Your task to perform on an android device: Open Chrome and go to settings Image 0: 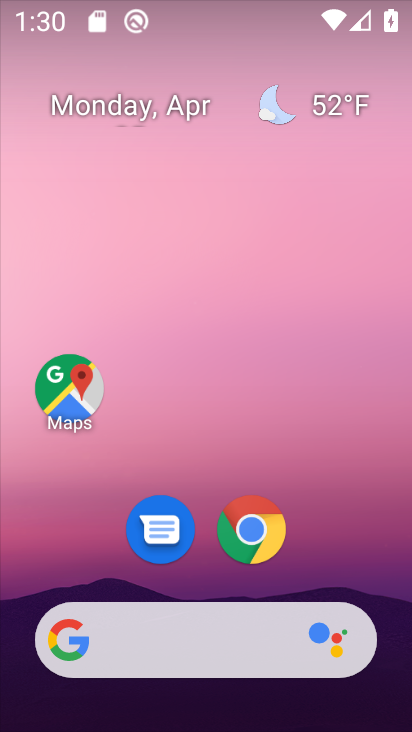
Step 0: drag from (383, 587) to (354, 247)
Your task to perform on an android device: Open Chrome and go to settings Image 1: 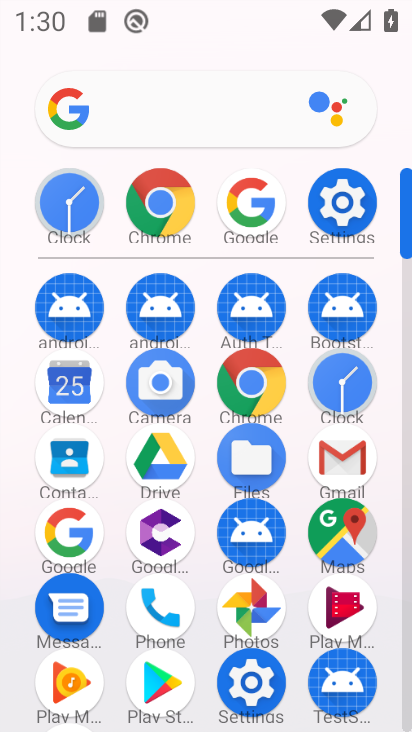
Step 1: click (155, 205)
Your task to perform on an android device: Open Chrome and go to settings Image 2: 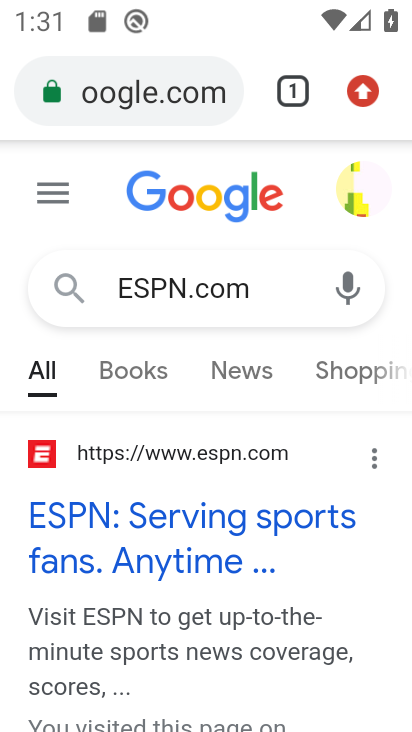
Step 2: click (359, 94)
Your task to perform on an android device: Open Chrome and go to settings Image 3: 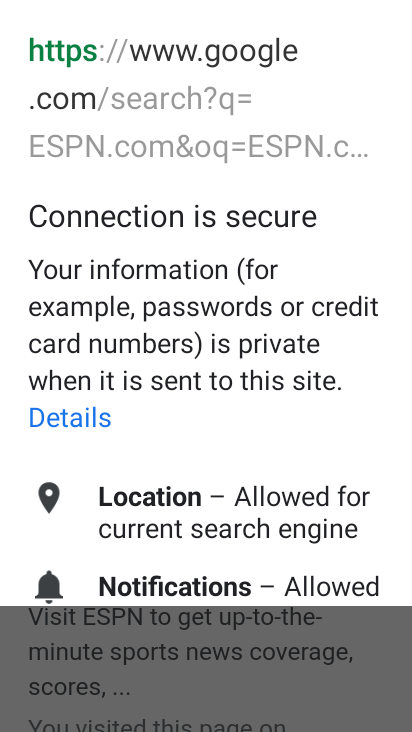
Step 3: click (309, 220)
Your task to perform on an android device: Open Chrome and go to settings Image 4: 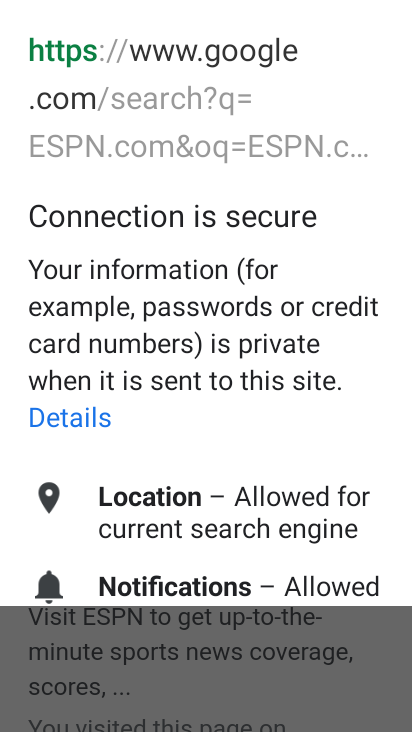
Step 4: drag from (272, 463) to (307, 169)
Your task to perform on an android device: Open Chrome and go to settings Image 5: 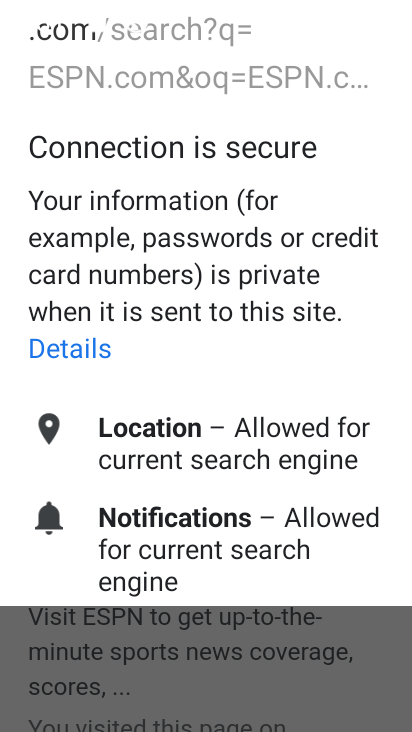
Step 5: drag from (279, 485) to (302, 317)
Your task to perform on an android device: Open Chrome and go to settings Image 6: 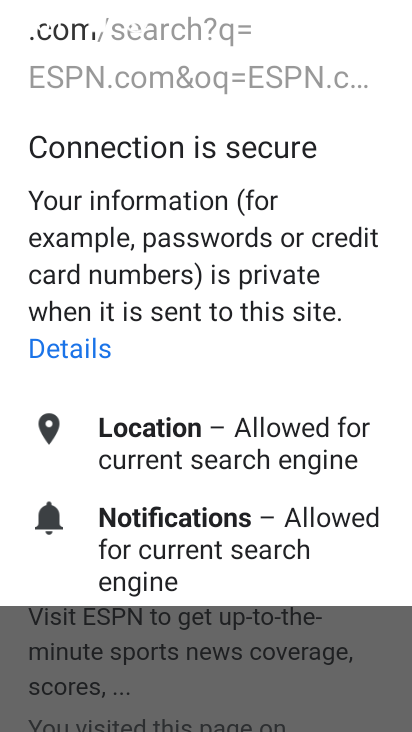
Step 6: press back button
Your task to perform on an android device: Open Chrome and go to settings Image 7: 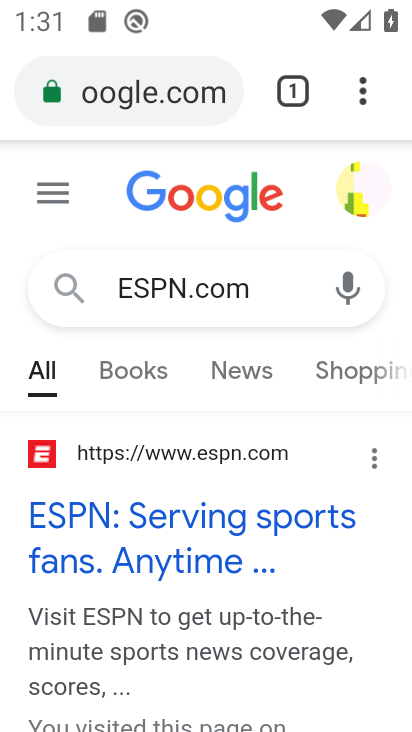
Step 7: click (359, 88)
Your task to perform on an android device: Open Chrome and go to settings Image 8: 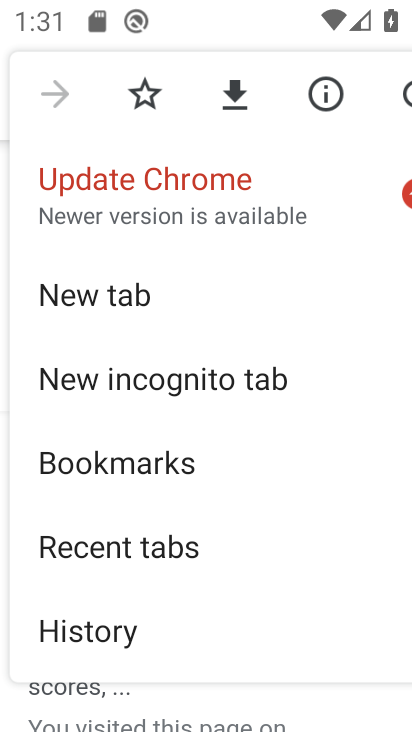
Step 8: drag from (299, 426) to (334, 251)
Your task to perform on an android device: Open Chrome and go to settings Image 9: 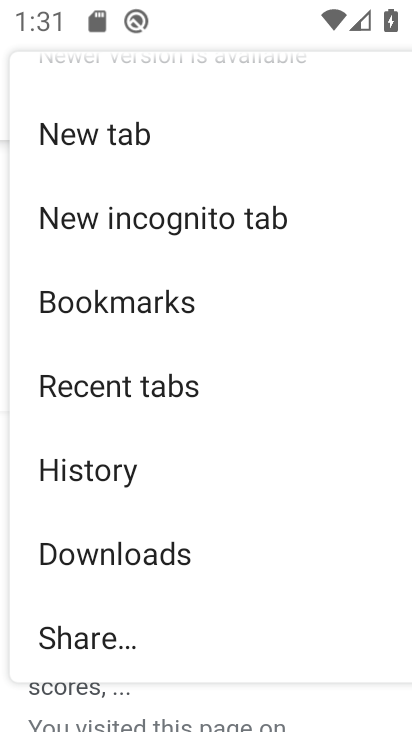
Step 9: drag from (285, 626) to (313, 321)
Your task to perform on an android device: Open Chrome and go to settings Image 10: 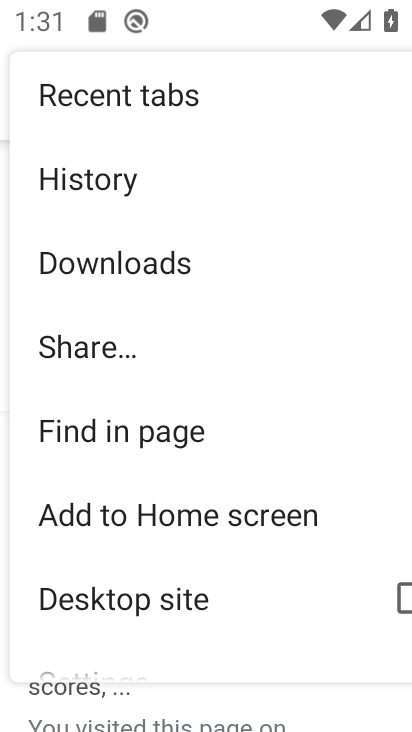
Step 10: drag from (277, 635) to (295, 348)
Your task to perform on an android device: Open Chrome and go to settings Image 11: 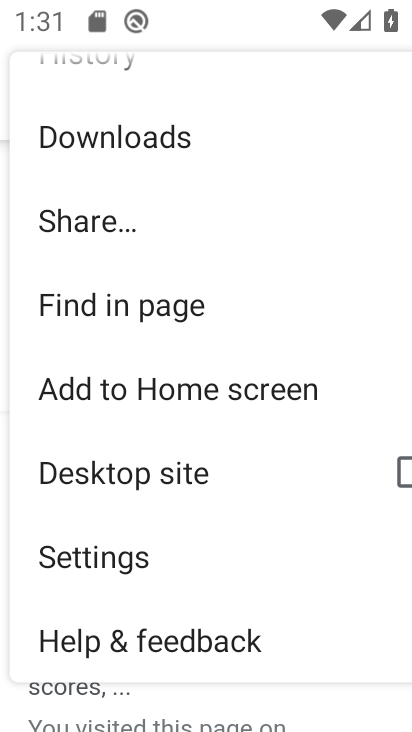
Step 11: drag from (328, 527) to (364, 288)
Your task to perform on an android device: Open Chrome and go to settings Image 12: 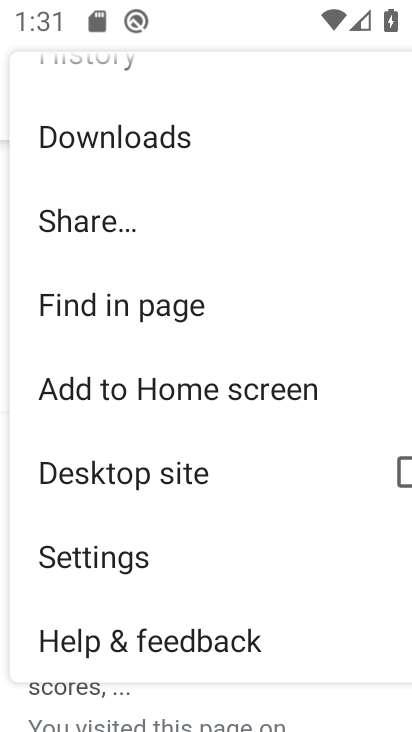
Step 12: drag from (296, 501) to (307, 253)
Your task to perform on an android device: Open Chrome and go to settings Image 13: 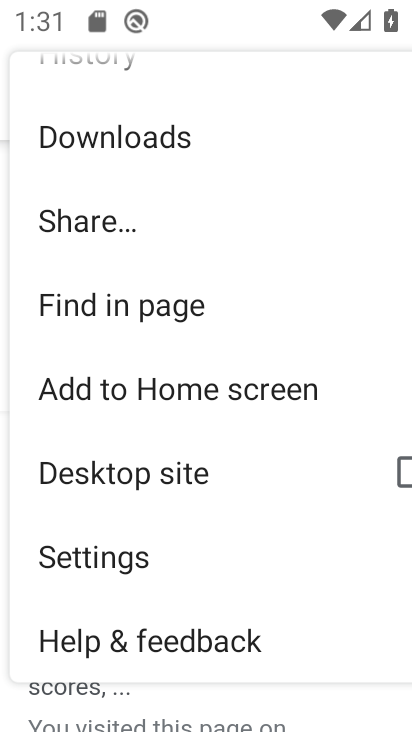
Step 13: click (91, 545)
Your task to perform on an android device: Open Chrome and go to settings Image 14: 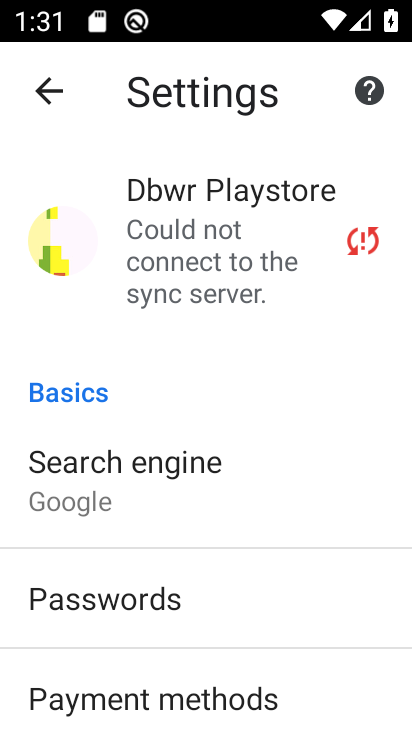
Step 14: task complete